Your task to perform on an android device: set an alarm Image 0: 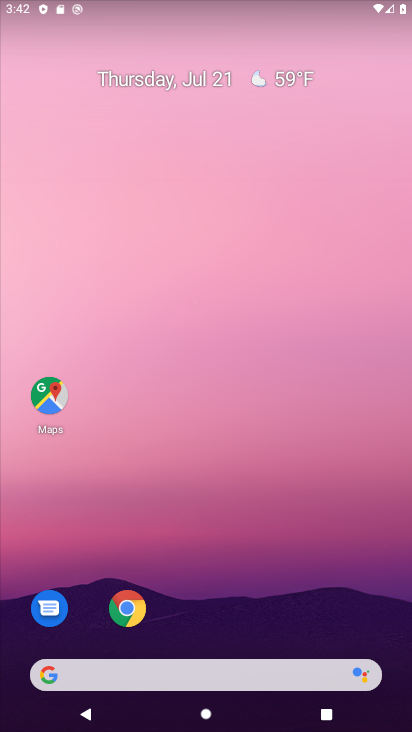
Step 0: drag from (233, 690) to (354, 46)
Your task to perform on an android device: set an alarm Image 1: 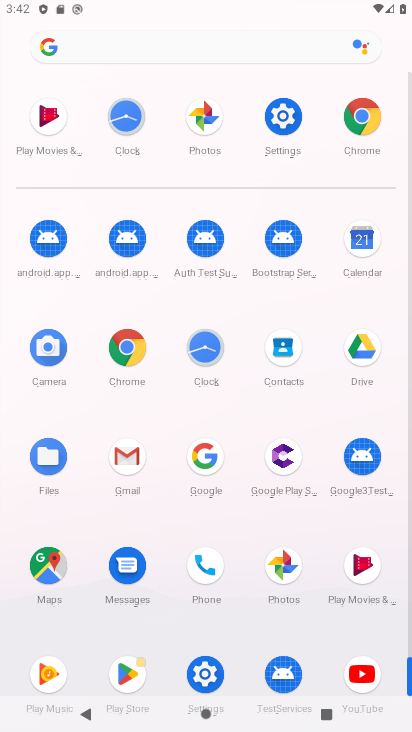
Step 1: click (211, 350)
Your task to perform on an android device: set an alarm Image 2: 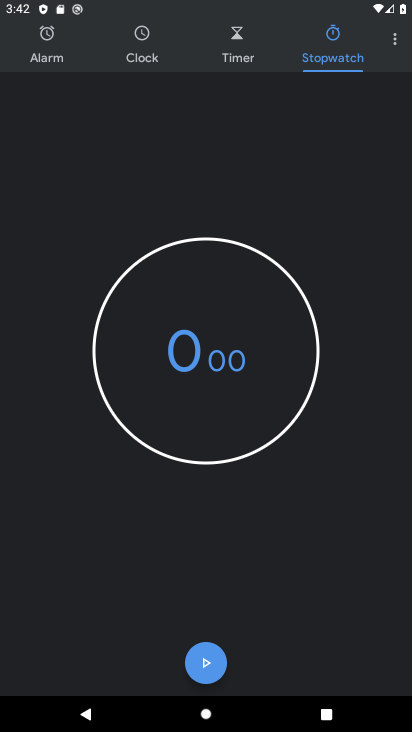
Step 2: click (62, 44)
Your task to perform on an android device: set an alarm Image 3: 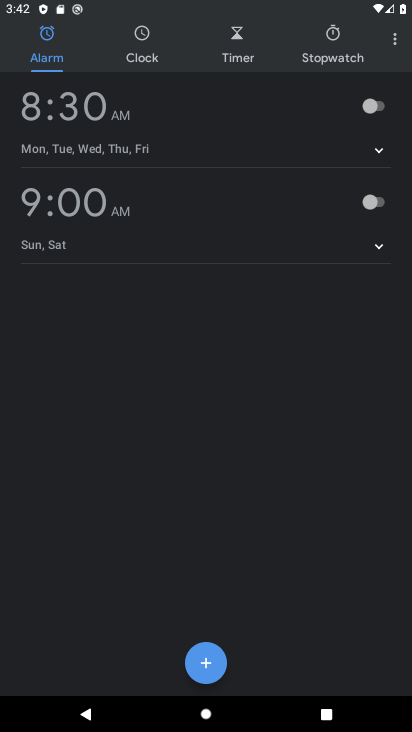
Step 3: click (372, 112)
Your task to perform on an android device: set an alarm Image 4: 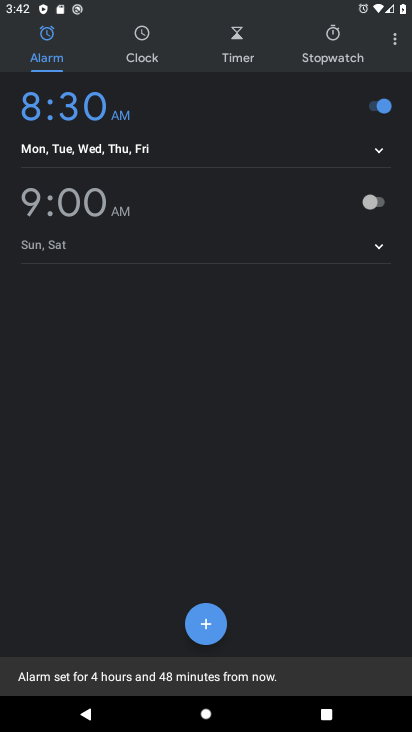
Step 4: task complete